Your task to perform on an android device: Search for sushi restaurants on Maps Image 0: 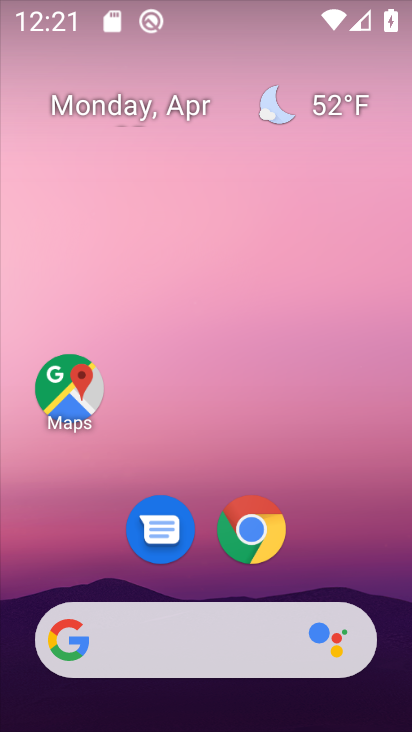
Step 0: click (61, 387)
Your task to perform on an android device: Search for sushi restaurants on Maps Image 1: 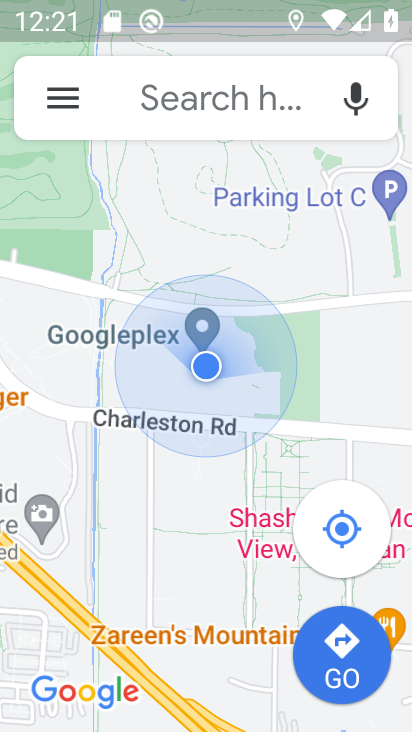
Step 1: click (129, 95)
Your task to perform on an android device: Search for sushi restaurants on Maps Image 2: 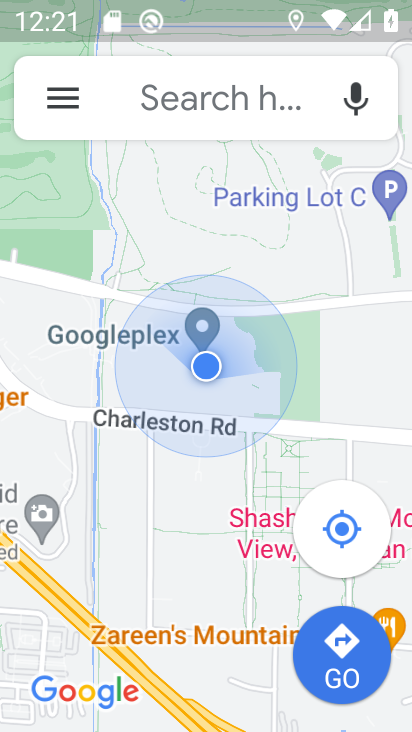
Step 2: type "sushi restaurants"
Your task to perform on an android device: Search for sushi restaurants on Maps Image 3: 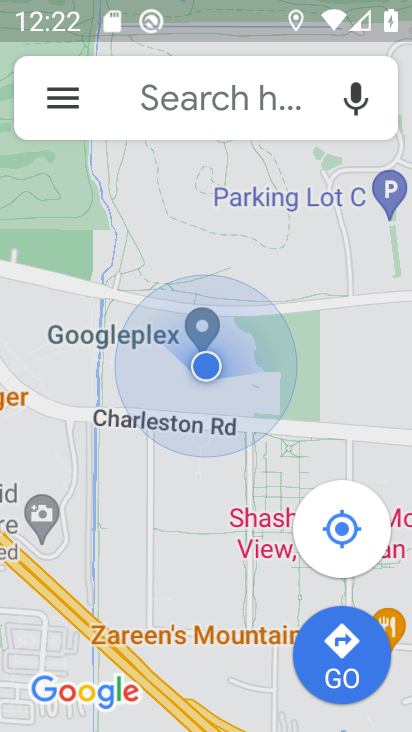
Step 3: type "sushi restaurants"
Your task to perform on an android device: Search for sushi restaurants on Maps Image 4: 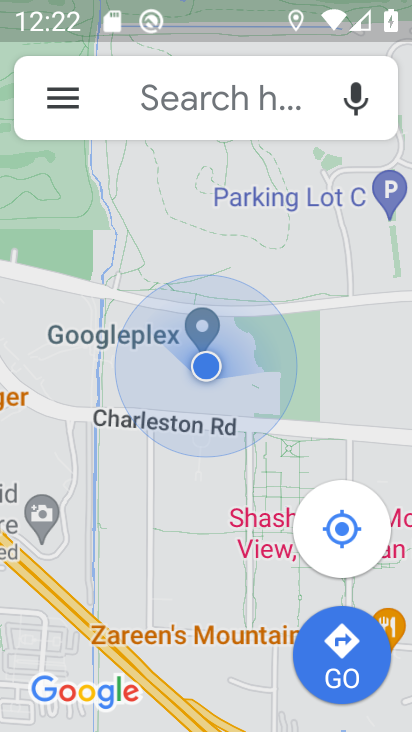
Step 4: click (169, 99)
Your task to perform on an android device: Search for sushi restaurants on Maps Image 5: 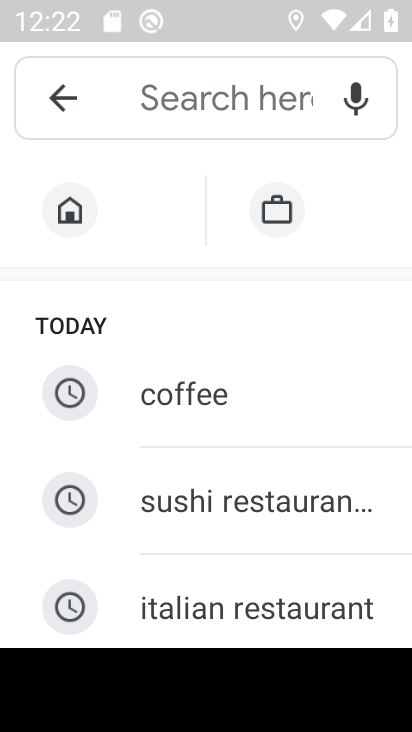
Step 5: type "sushi restaurants"
Your task to perform on an android device: Search for sushi restaurants on Maps Image 6: 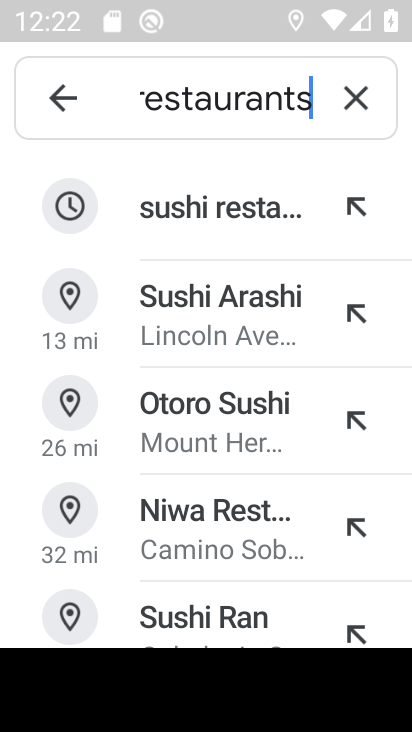
Step 6: click (213, 208)
Your task to perform on an android device: Search for sushi restaurants on Maps Image 7: 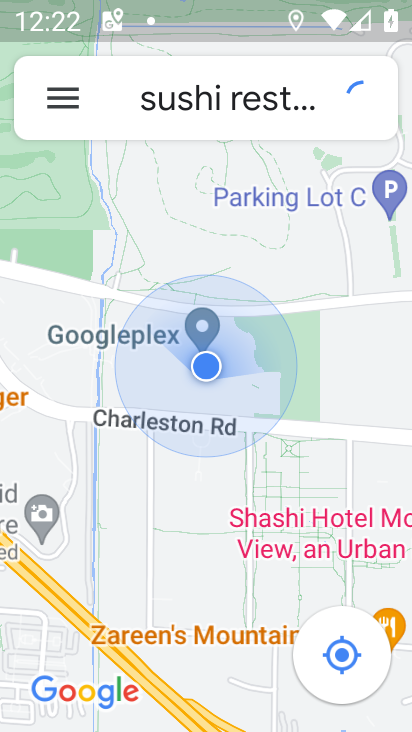
Step 7: task complete